Your task to perform on an android device: Is it going to rain tomorrow? Image 0: 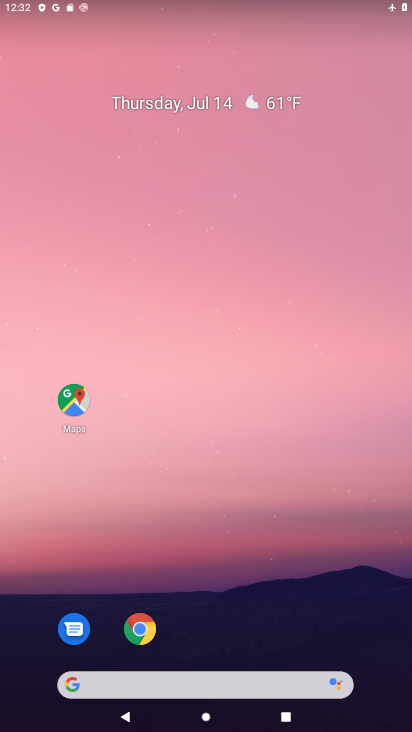
Step 0: click (158, 679)
Your task to perform on an android device: Is it going to rain tomorrow? Image 1: 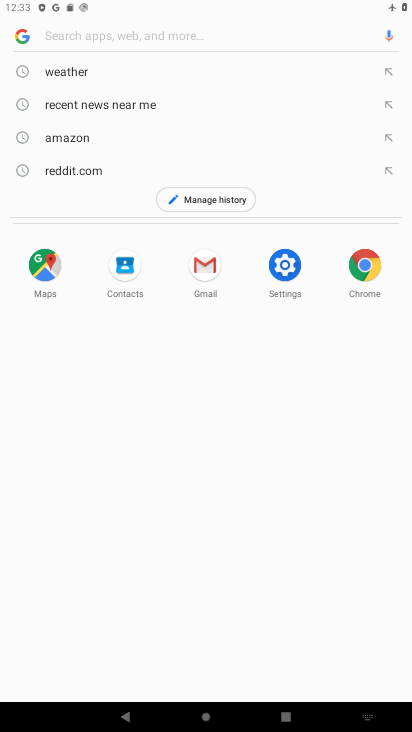
Step 1: click (57, 81)
Your task to perform on an android device: Is it going to rain tomorrow? Image 2: 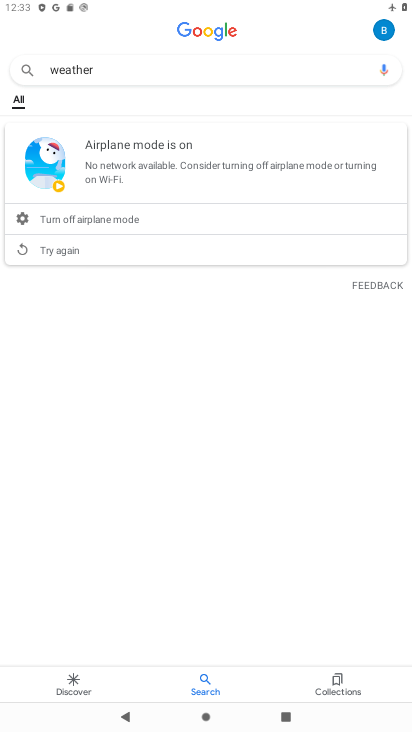
Step 2: drag from (312, 9) to (254, 523)
Your task to perform on an android device: Is it going to rain tomorrow? Image 3: 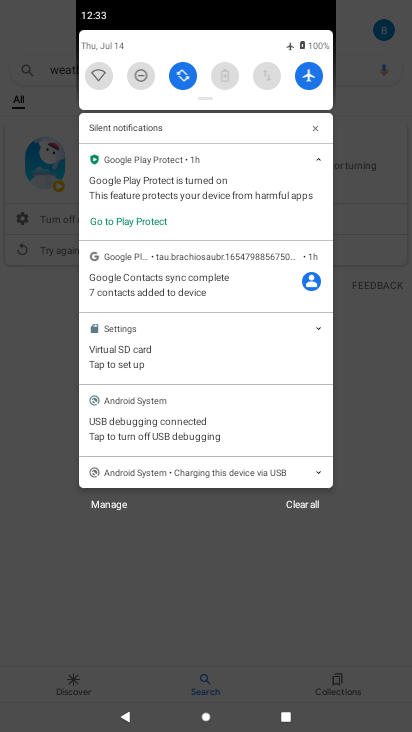
Step 3: click (314, 82)
Your task to perform on an android device: Is it going to rain tomorrow? Image 4: 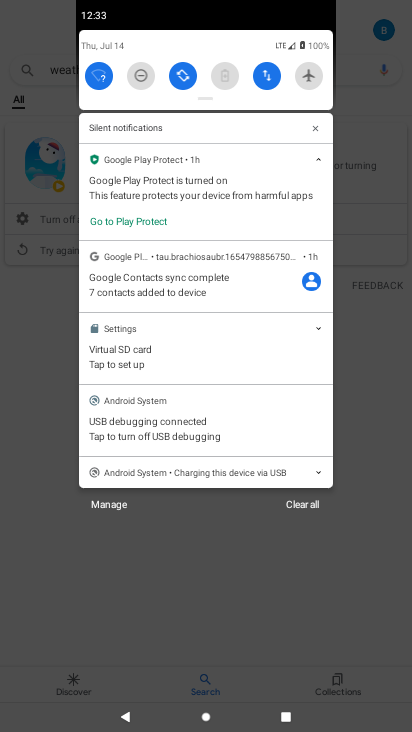
Step 4: task complete